Your task to perform on an android device: Turn on the flashlight Image 0: 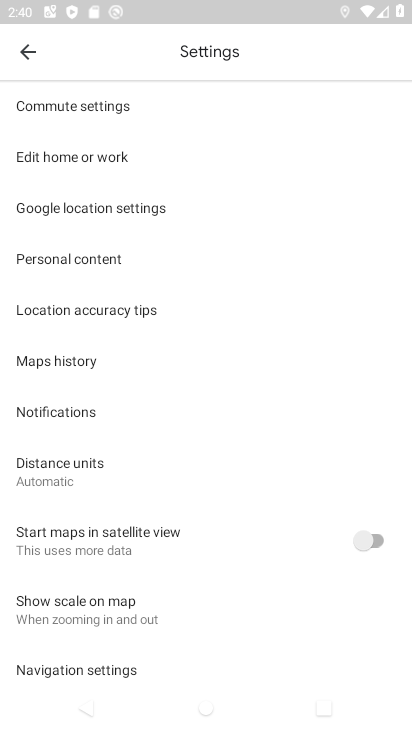
Step 0: press home button
Your task to perform on an android device: Turn on the flashlight Image 1: 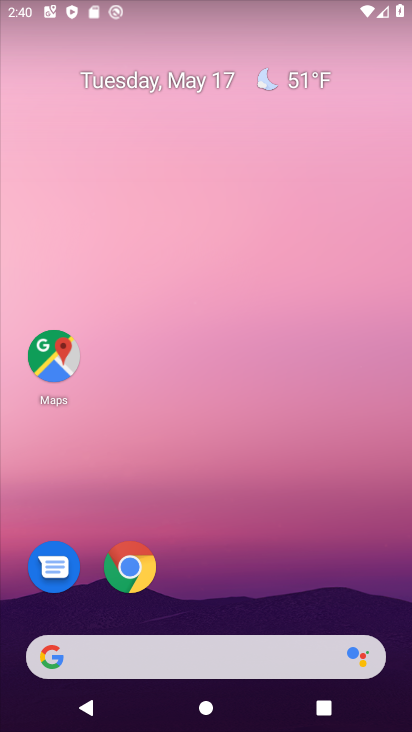
Step 1: task complete